Your task to perform on an android device: uninstall "Facebook" Image 0: 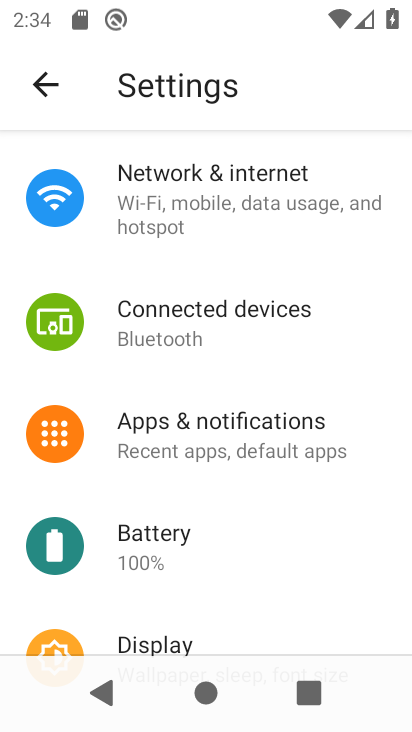
Step 0: press home button
Your task to perform on an android device: uninstall "Facebook" Image 1: 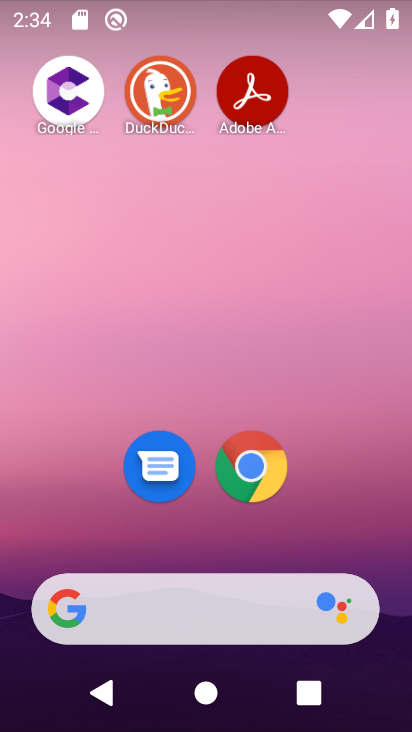
Step 1: drag from (220, 612) to (204, 0)
Your task to perform on an android device: uninstall "Facebook" Image 2: 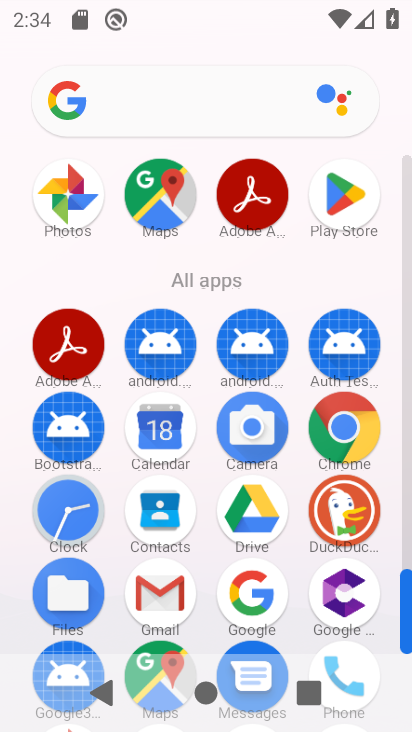
Step 2: drag from (269, 570) to (257, 192)
Your task to perform on an android device: uninstall "Facebook" Image 3: 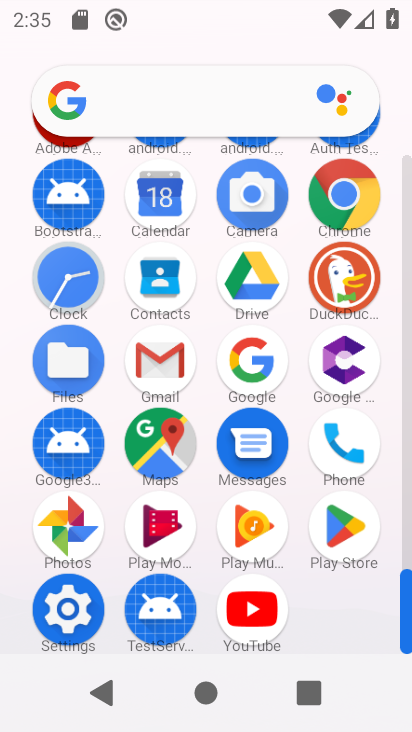
Step 3: click (350, 544)
Your task to perform on an android device: uninstall "Facebook" Image 4: 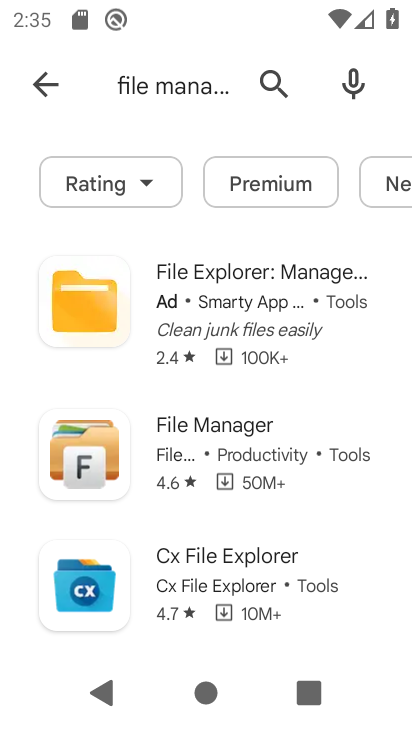
Step 4: click (265, 86)
Your task to perform on an android device: uninstall "Facebook" Image 5: 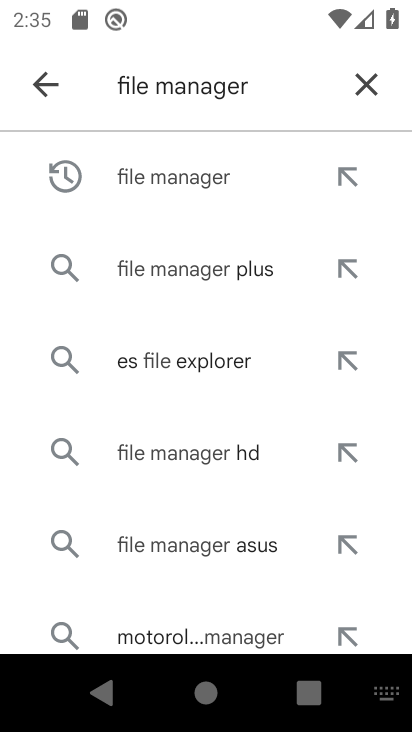
Step 5: click (358, 85)
Your task to perform on an android device: uninstall "Facebook" Image 6: 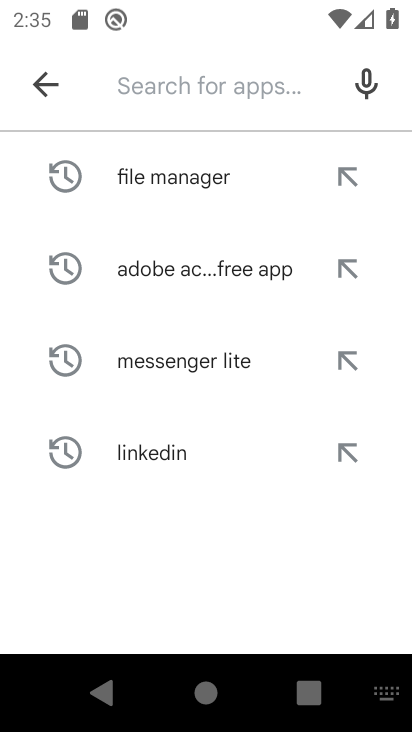
Step 6: type "facebook"
Your task to perform on an android device: uninstall "Facebook" Image 7: 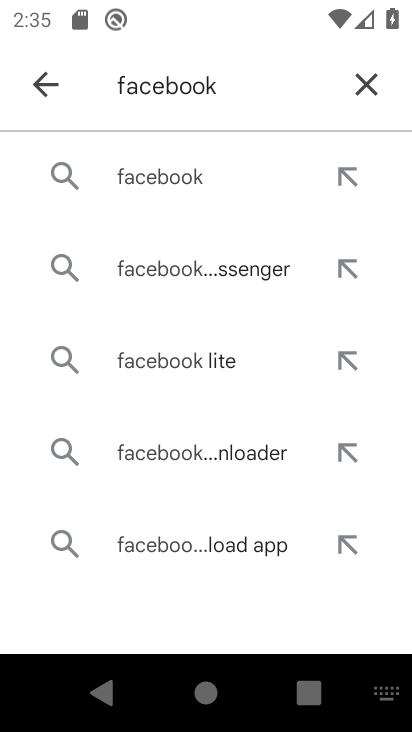
Step 7: click (142, 157)
Your task to perform on an android device: uninstall "Facebook" Image 8: 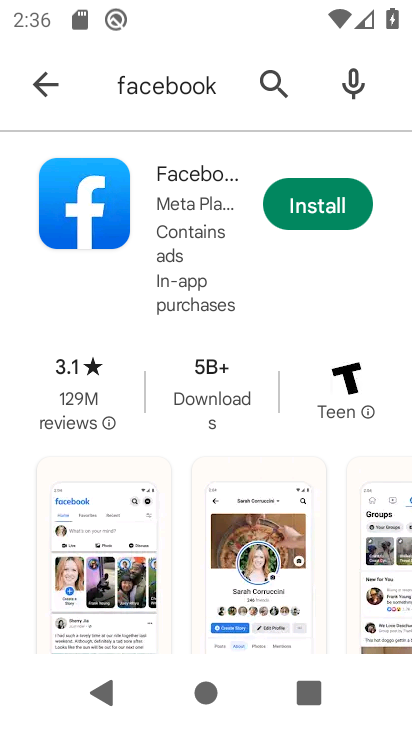
Step 8: task complete